Your task to perform on an android device: turn on sleep mode Image 0: 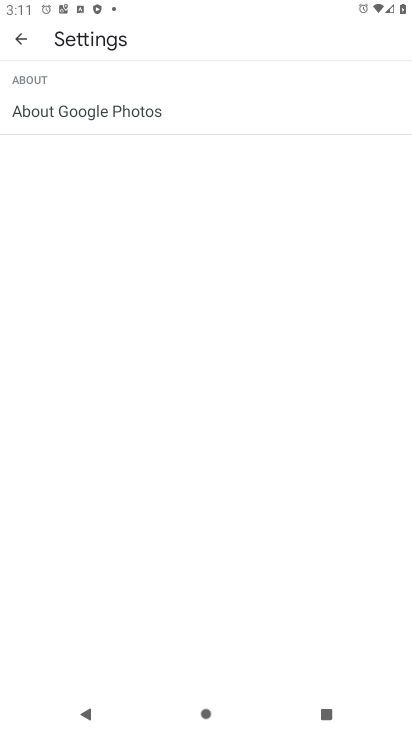
Step 0: press home button
Your task to perform on an android device: turn on sleep mode Image 1: 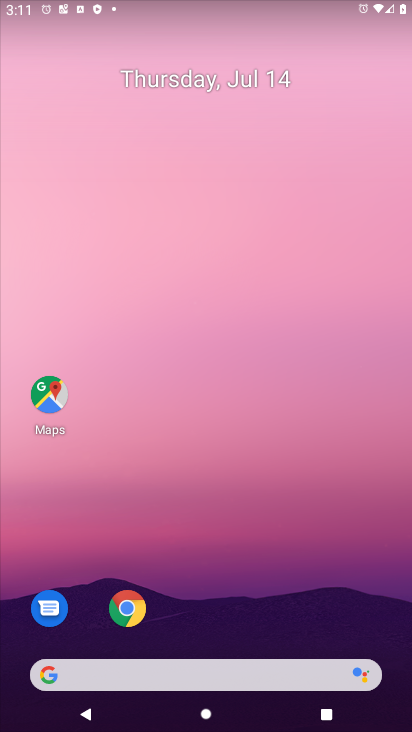
Step 1: drag from (388, 643) to (373, 170)
Your task to perform on an android device: turn on sleep mode Image 2: 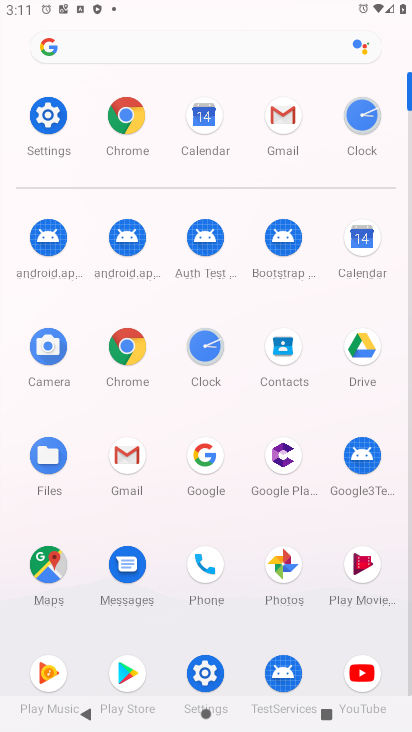
Step 2: click (204, 674)
Your task to perform on an android device: turn on sleep mode Image 3: 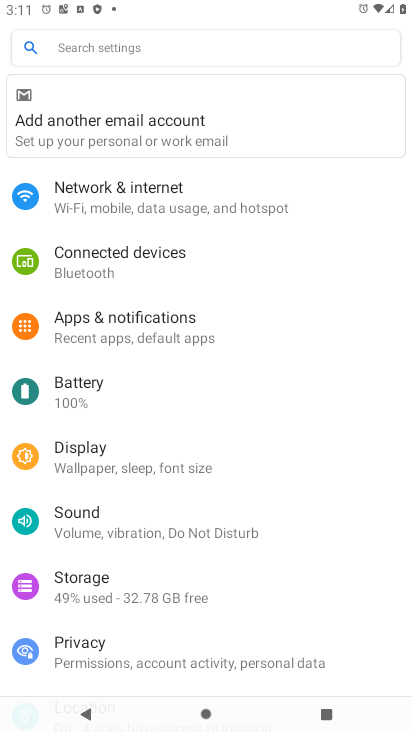
Step 3: click (84, 455)
Your task to perform on an android device: turn on sleep mode Image 4: 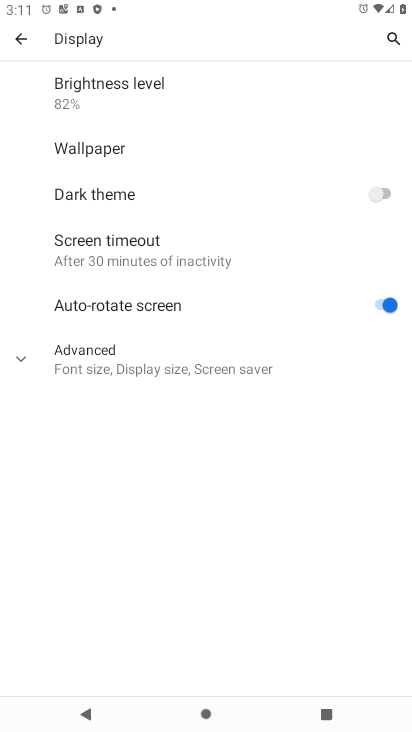
Step 4: click (14, 361)
Your task to perform on an android device: turn on sleep mode Image 5: 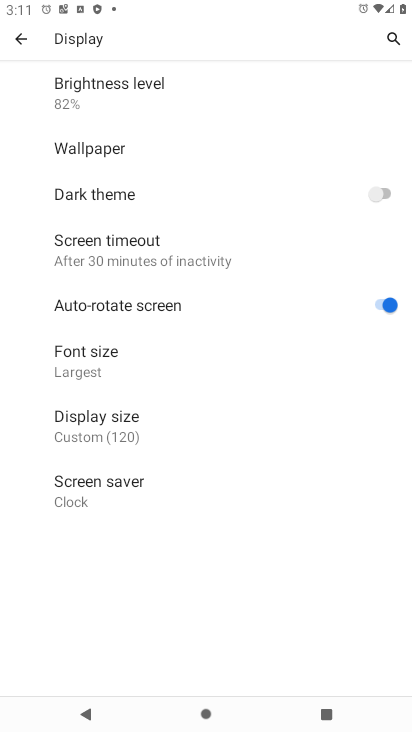
Step 5: task complete